Your task to perform on an android device: Look up the best rated pressure washer on Home Depot. Image 0: 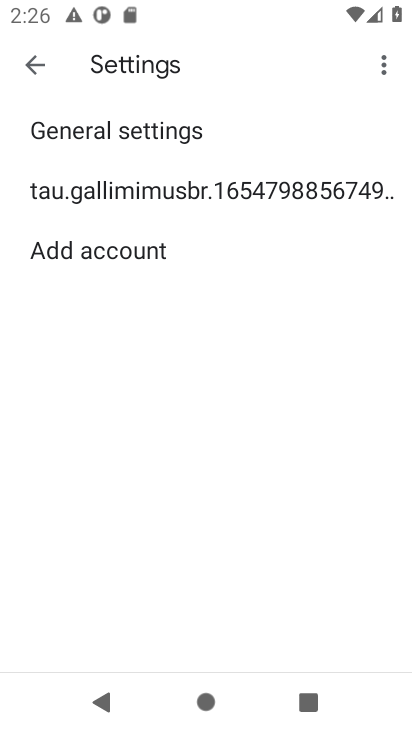
Step 0: press home button
Your task to perform on an android device: Look up the best rated pressure washer on Home Depot. Image 1: 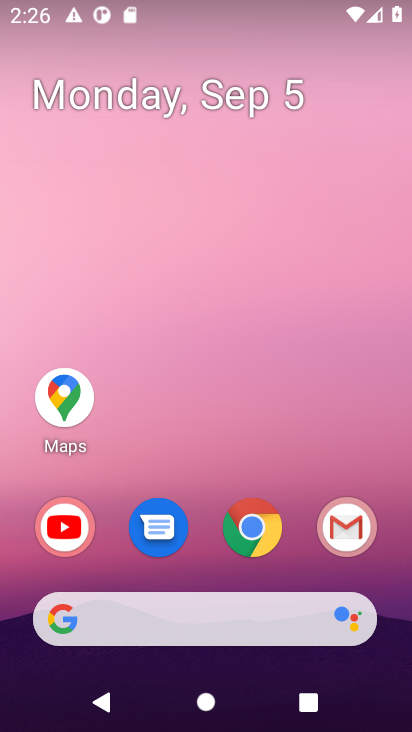
Step 1: click (274, 533)
Your task to perform on an android device: Look up the best rated pressure washer on Home Depot. Image 2: 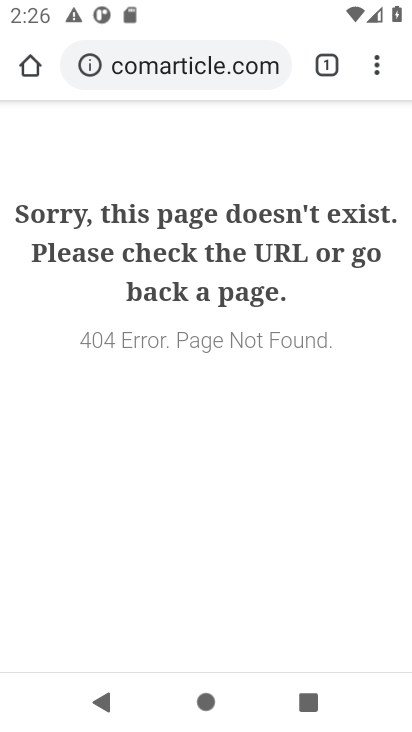
Step 2: click (195, 59)
Your task to perform on an android device: Look up the best rated pressure washer on Home Depot. Image 3: 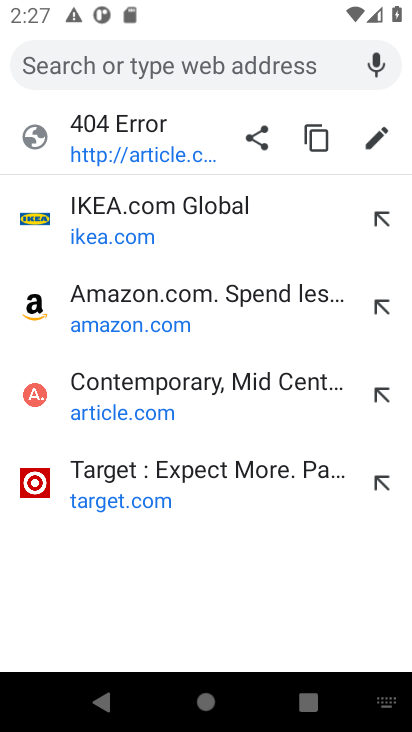
Step 3: type "home depot"
Your task to perform on an android device: Look up the best rated pressure washer on Home Depot. Image 4: 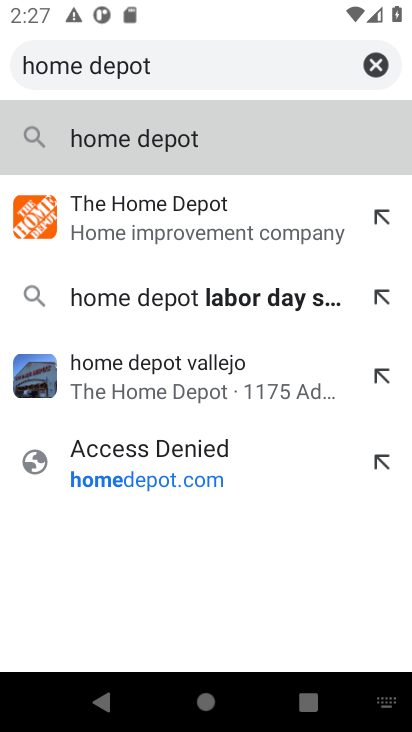
Step 4: click (169, 212)
Your task to perform on an android device: Look up the best rated pressure washer on Home Depot. Image 5: 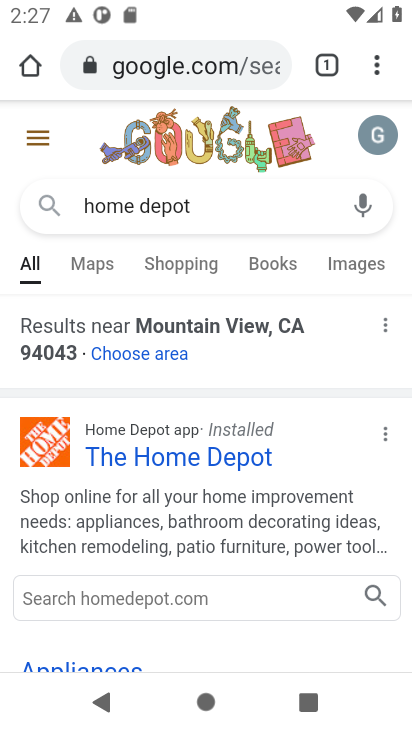
Step 5: click (182, 478)
Your task to perform on an android device: Look up the best rated pressure washer on Home Depot. Image 6: 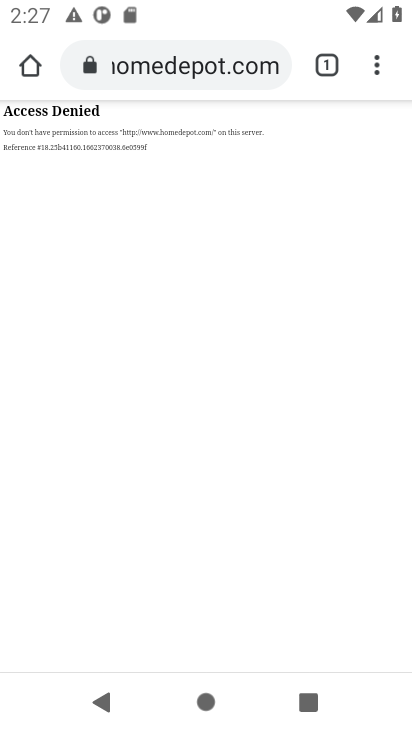
Step 6: task complete